Your task to perform on an android device: Open calendar and show me the first week of next month Image 0: 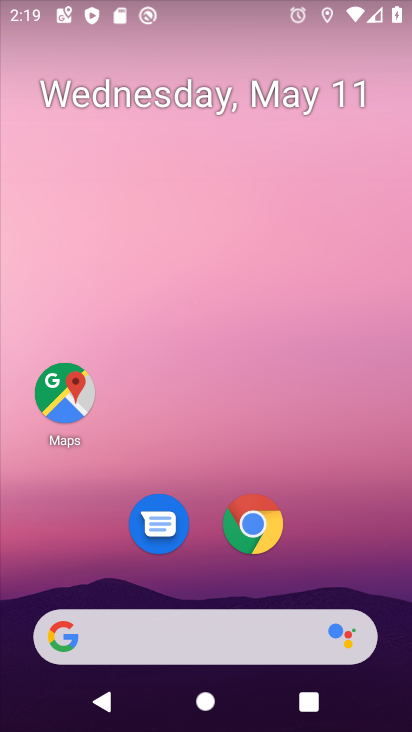
Step 0: drag from (313, 521) to (318, 63)
Your task to perform on an android device: Open calendar and show me the first week of next month Image 1: 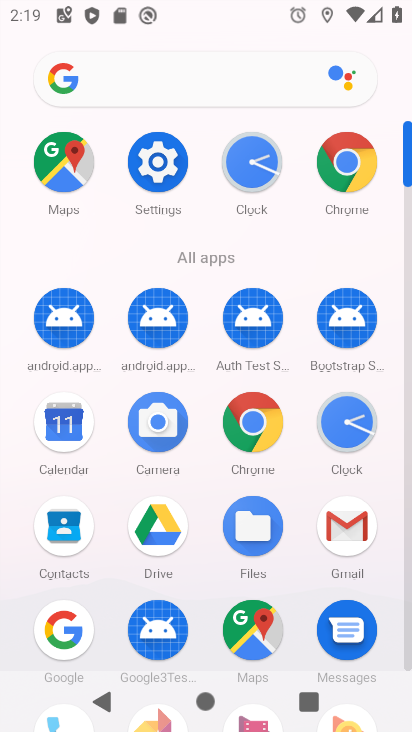
Step 1: click (60, 425)
Your task to perform on an android device: Open calendar and show me the first week of next month Image 2: 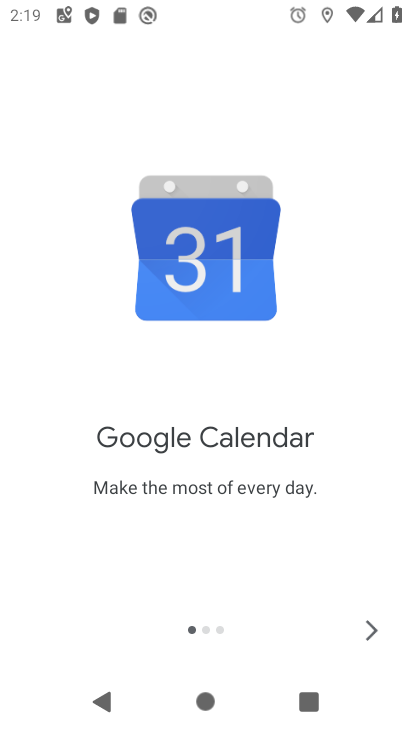
Step 2: click (365, 621)
Your task to perform on an android device: Open calendar and show me the first week of next month Image 3: 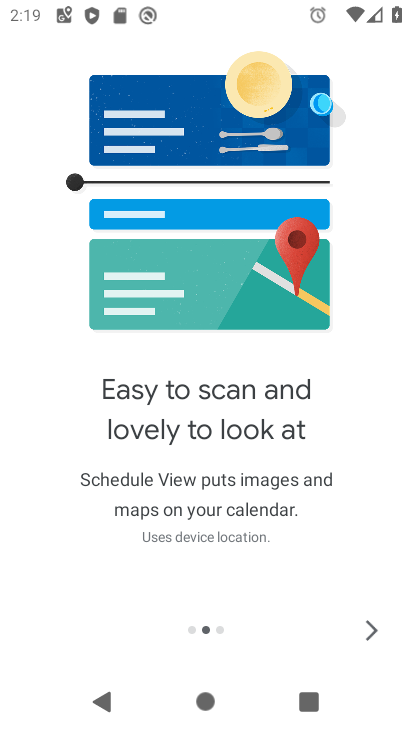
Step 3: click (367, 630)
Your task to perform on an android device: Open calendar and show me the first week of next month Image 4: 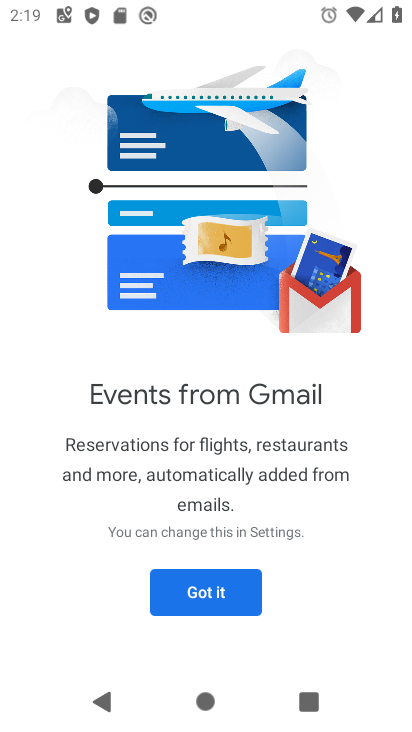
Step 4: click (200, 606)
Your task to perform on an android device: Open calendar and show me the first week of next month Image 5: 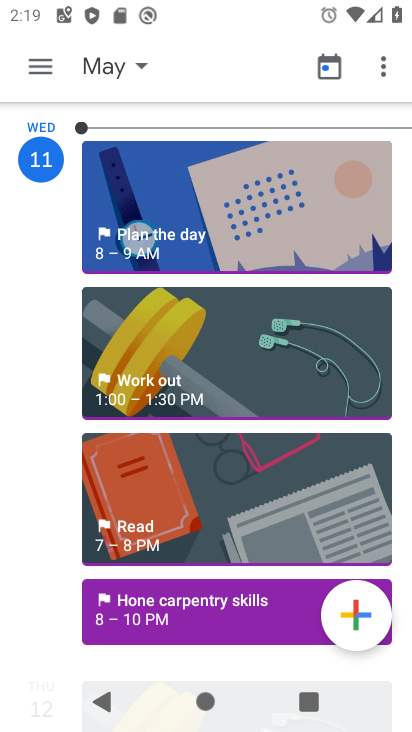
Step 5: click (46, 65)
Your task to perform on an android device: Open calendar and show me the first week of next month Image 6: 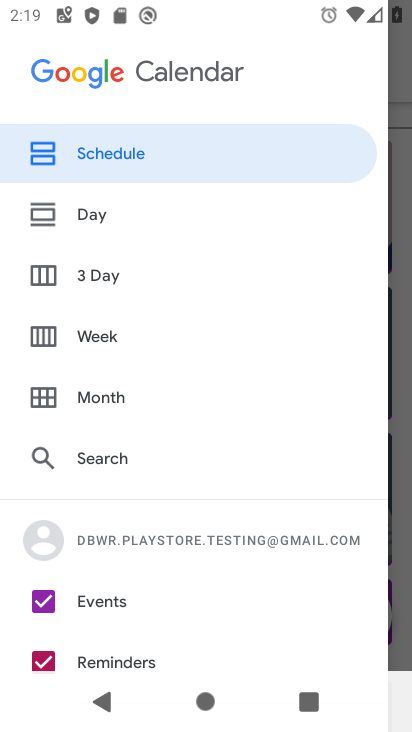
Step 6: click (44, 393)
Your task to perform on an android device: Open calendar and show me the first week of next month Image 7: 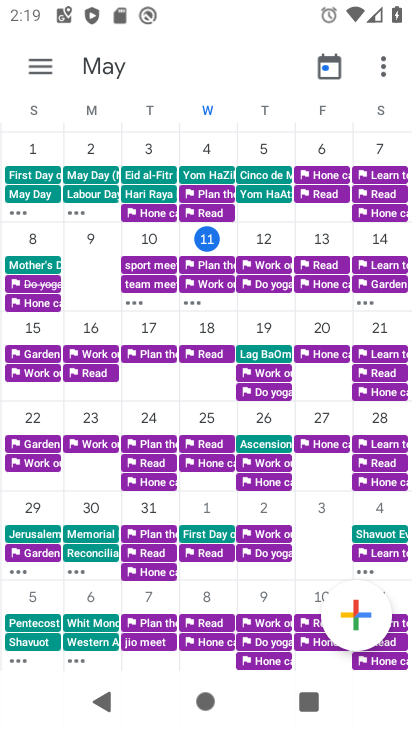
Step 7: click (27, 600)
Your task to perform on an android device: Open calendar and show me the first week of next month Image 8: 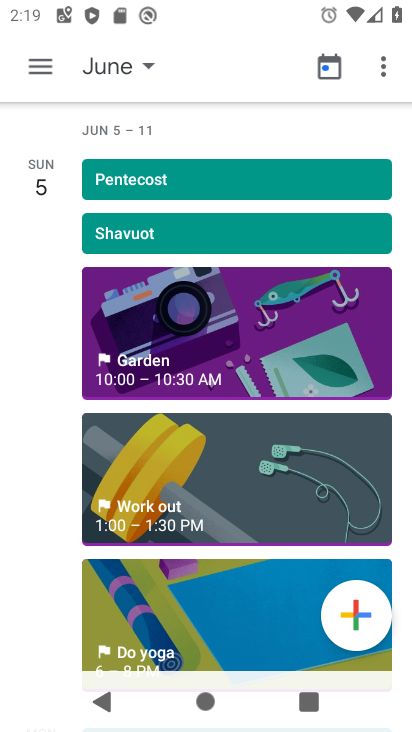
Step 8: click (45, 66)
Your task to perform on an android device: Open calendar and show me the first week of next month Image 9: 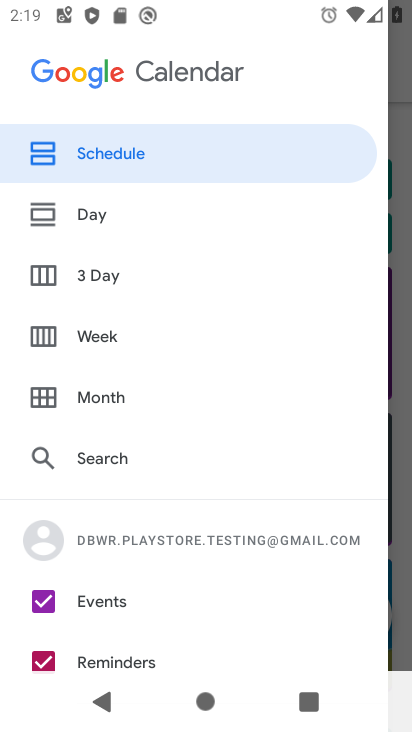
Step 9: click (90, 329)
Your task to perform on an android device: Open calendar and show me the first week of next month Image 10: 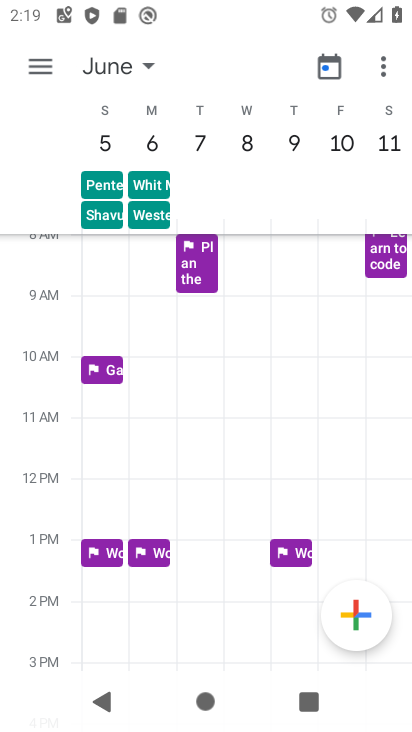
Step 10: task complete